Your task to perform on an android device: turn on the 12-hour format for clock Image 0: 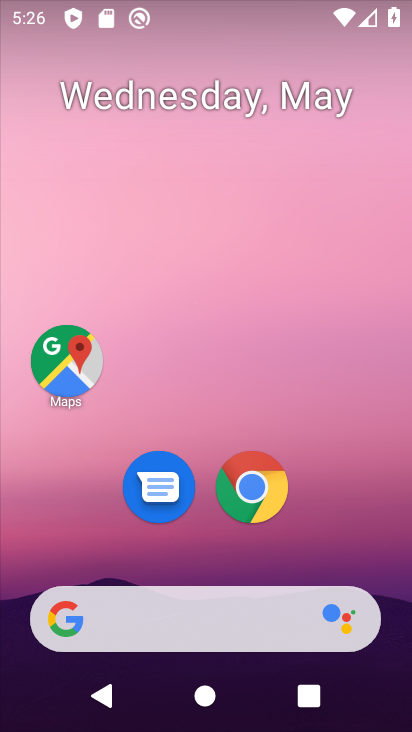
Step 0: drag from (300, 551) to (259, 197)
Your task to perform on an android device: turn on the 12-hour format for clock Image 1: 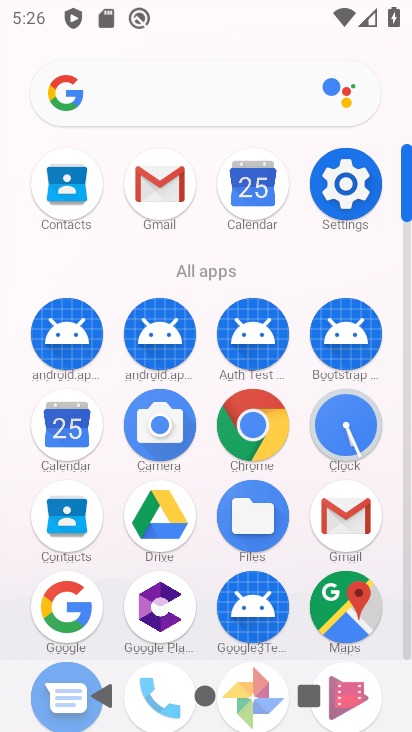
Step 1: click (331, 446)
Your task to perform on an android device: turn on the 12-hour format for clock Image 2: 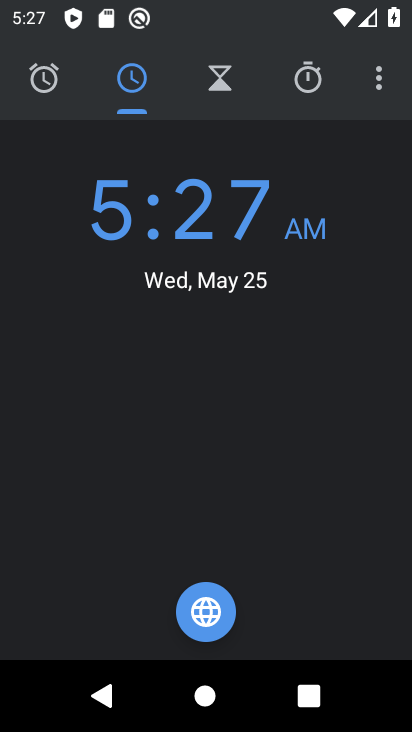
Step 2: click (382, 81)
Your task to perform on an android device: turn on the 12-hour format for clock Image 3: 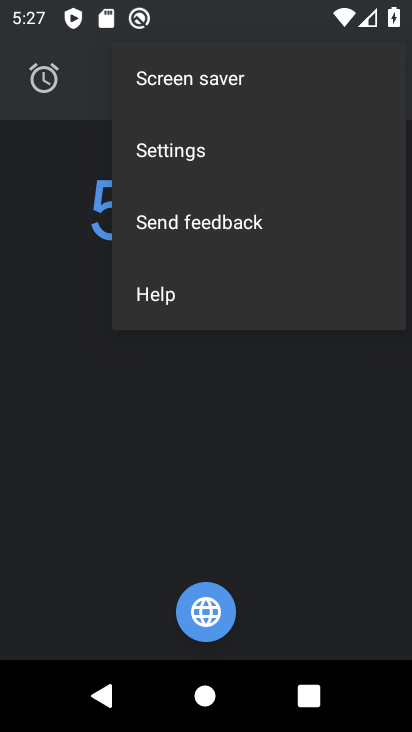
Step 3: click (209, 156)
Your task to perform on an android device: turn on the 12-hour format for clock Image 4: 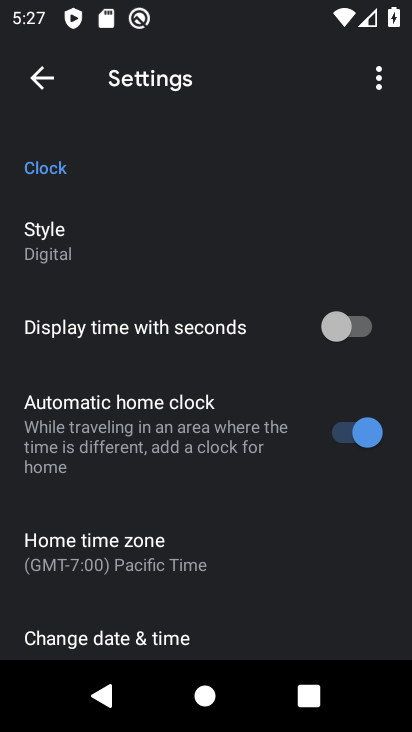
Step 4: click (114, 642)
Your task to perform on an android device: turn on the 12-hour format for clock Image 5: 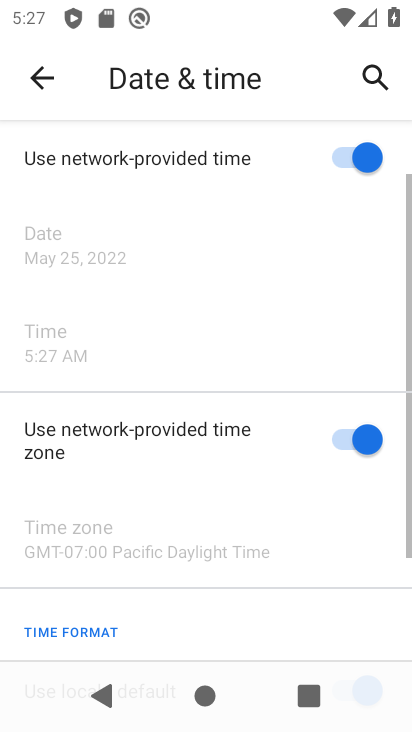
Step 5: task complete